Your task to perform on an android device: Open Wikipedia Image 0: 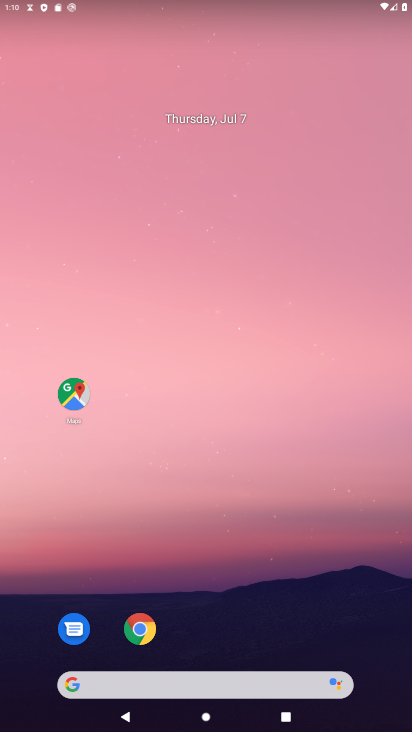
Step 0: drag from (263, 614) to (264, 36)
Your task to perform on an android device: Open Wikipedia Image 1: 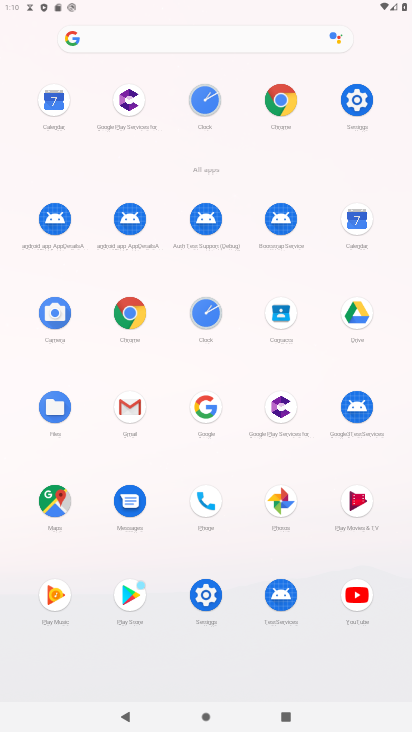
Step 1: click (126, 299)
Your task to perform on an android device: Open Wikipedia Image 2: 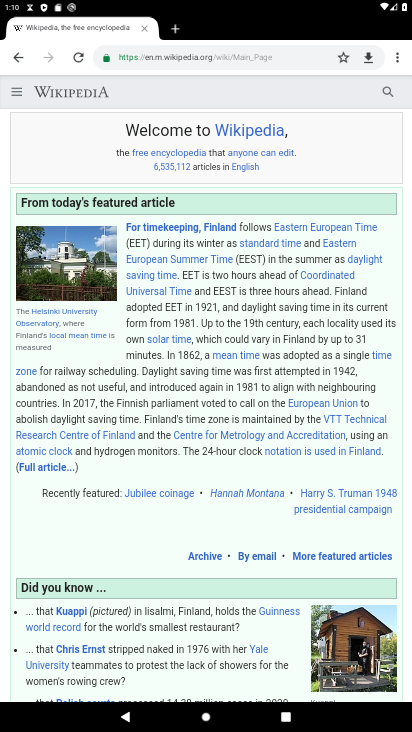
Step 2: click (244, 135)
Your task to perform on an android device: Open Wikipedia Image 3: 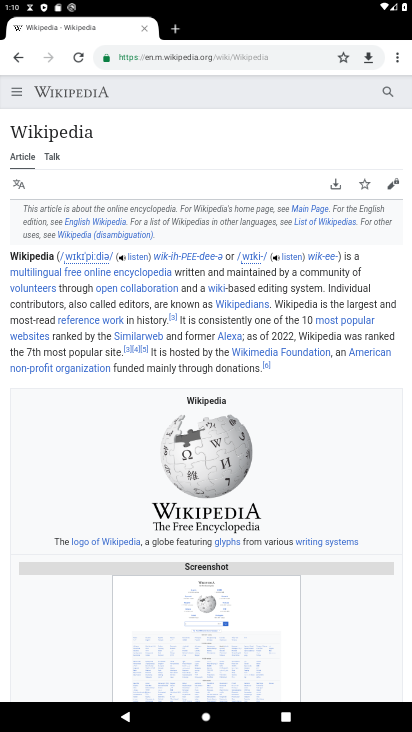
Step 3: task complete